Your task to perform on an android device: toggle data saver in the chrome app Image 0: 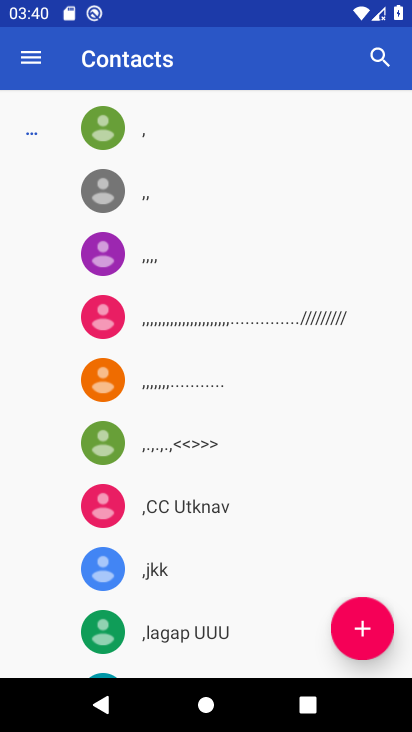
Step 0: press home button
Your task to perform on an android device: toggle data saver in the chrome app Image 1: 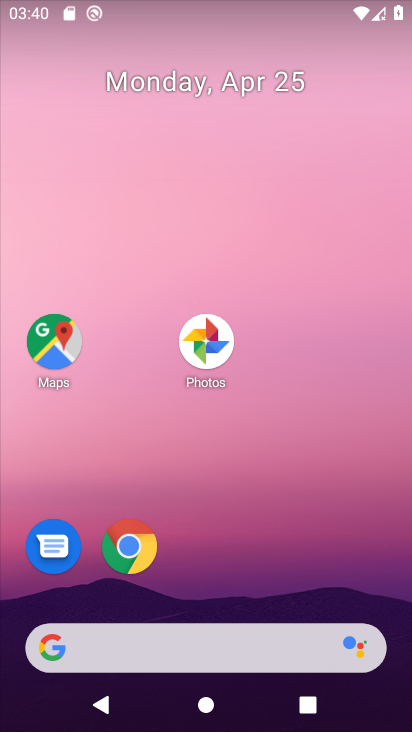
Step 1: drag from (207, 511) to (260, 310)
Your task to perform on an android device: toggle data saver in the chrome app Image 2: 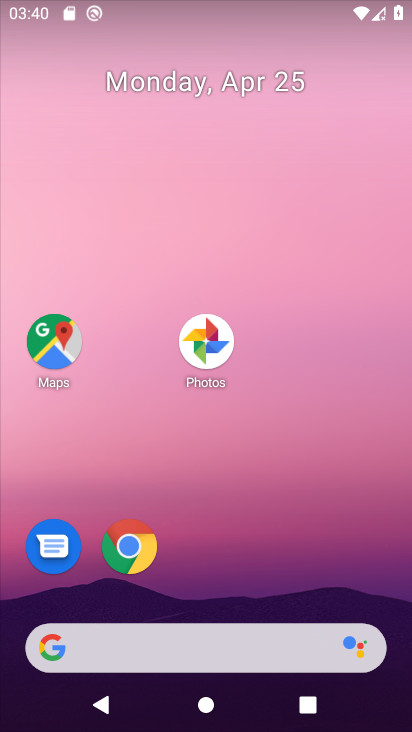
Step 2: drag from (247, 582) to (294, 222)
Your task to perform on an android device: toggle data saver in the chrome app Image 3: 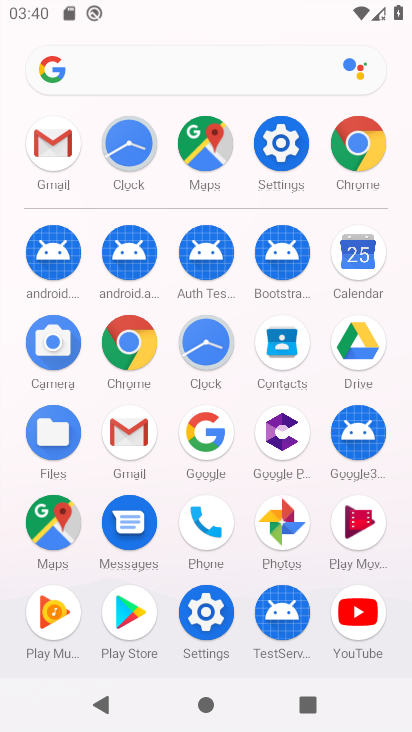
Step 3: click (136, 360)
Your task to perform on an android device: toggle data saver in the chrome app Image 4: 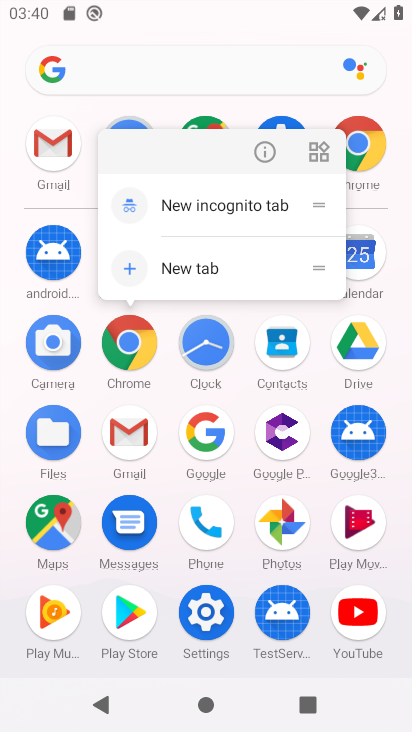
Step 4: click (136, 360)
Your task to perform on an android device: toggle data saver in the chrome app Image 5: 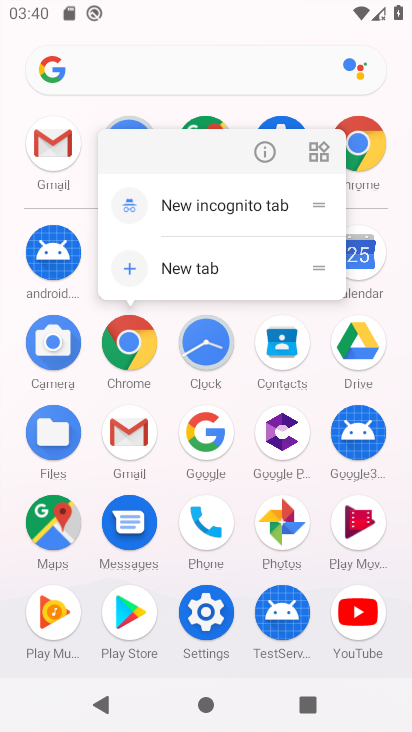
Step 5: click (136, 360)
Your task to perform on an android device: toggle data saver in the chrome app Image 6: 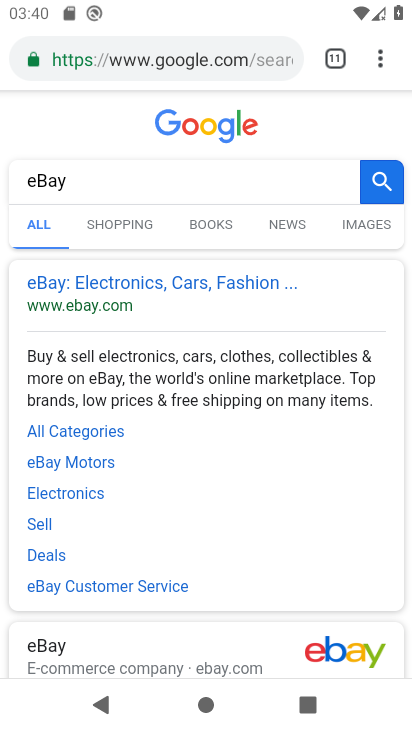
Step 6: click (382, 55)
Your task to perform on an android device: toggle data saver in the chrome app Image 7: 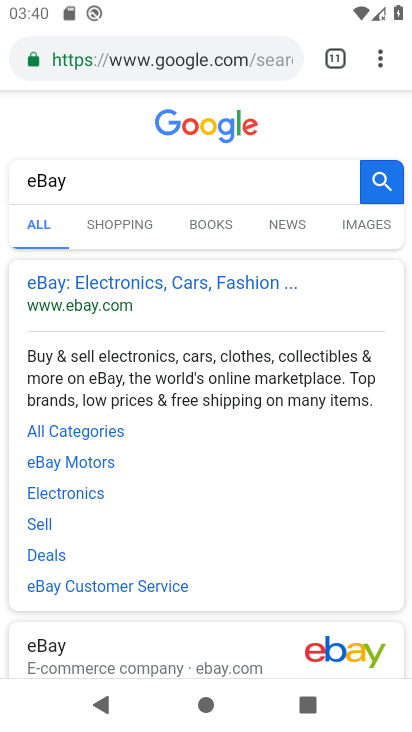
Step 7: click (381, 56)
Your task to perform on an android device: toggle data saver in the chrome app Image 8: 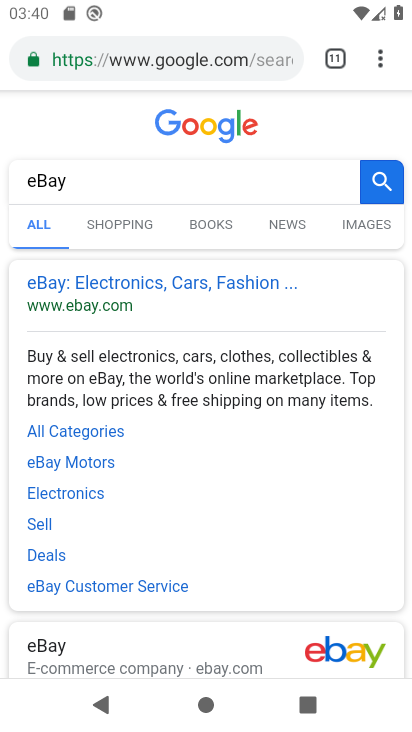
Step 8: click (365, 58)
Your task to perform on an android device: toggle data saver in the chrome app Image 9: 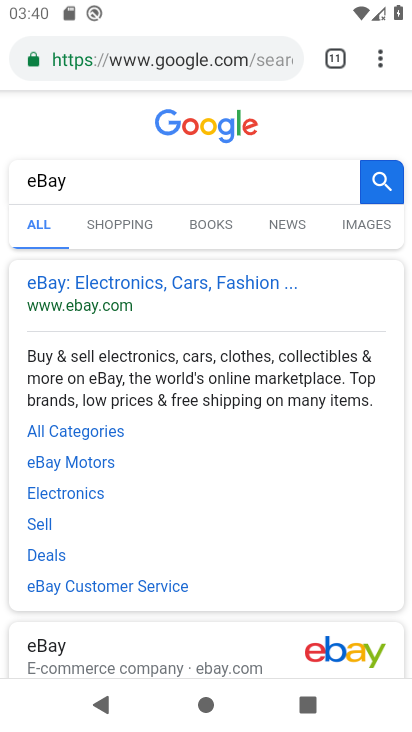
Step 9: click (378, 55)
Your task to perform on an android device: toggle data saver in the chrome app Image 10: 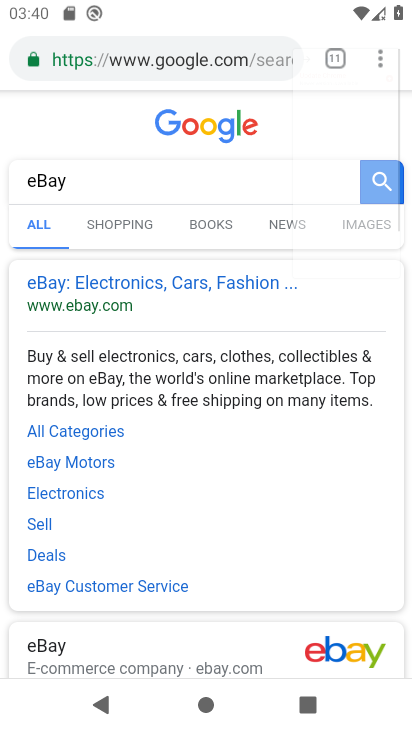
Step 10: click (378, 55)
Your task to perform on an android device: toggle data saver in the chrome app Image 11: 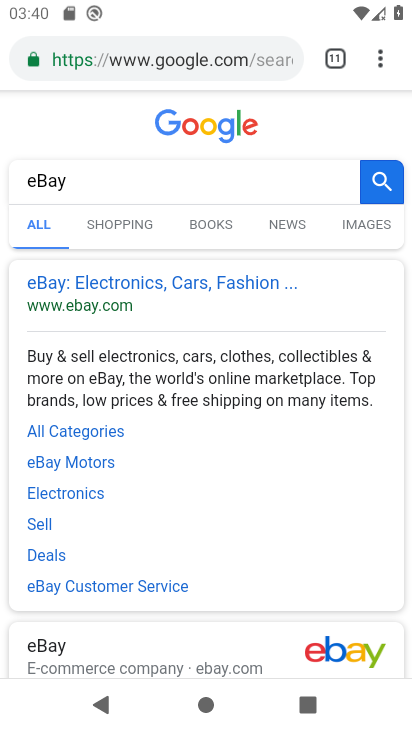
Step 11: click (378, 59)
Your task to perform on an android device: toggle data saver in the chrome app Image 12: 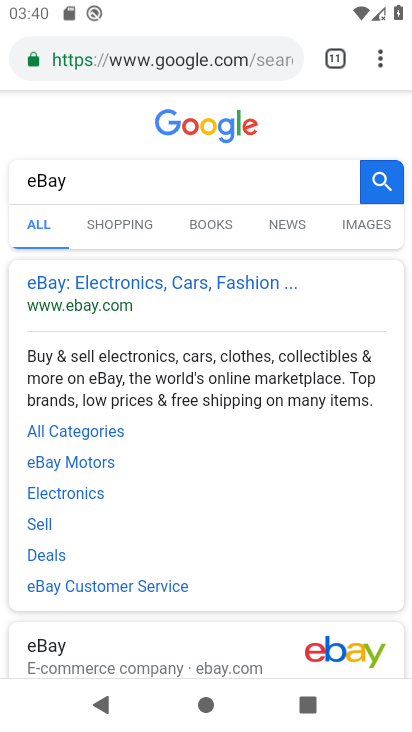
Step 12: click (370, 57)
Your task to perform on an android device: toggle data saver in the chrome app Image 13: 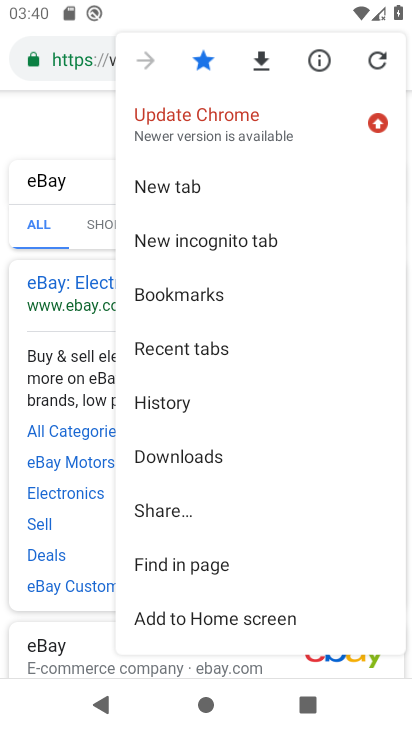
Step 13: drag from (227, 567) to (299, 156)
Your task to perform on an android device: toggle data saver in the chrome app Image 14: 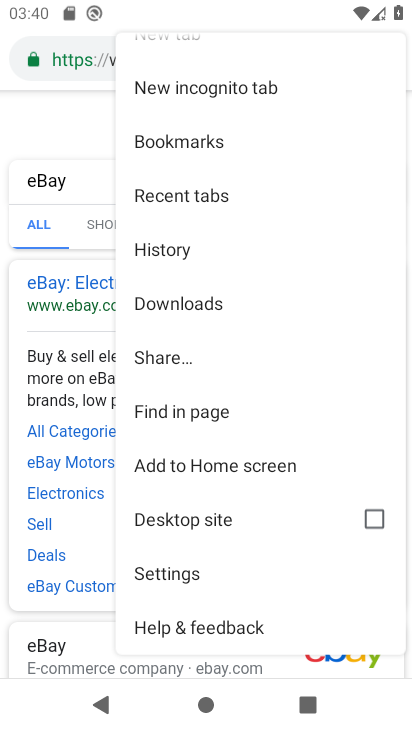
Step 14: click (214, 575)
Your task to perform on an android device: toggle data saver in the chrome app Image 15: 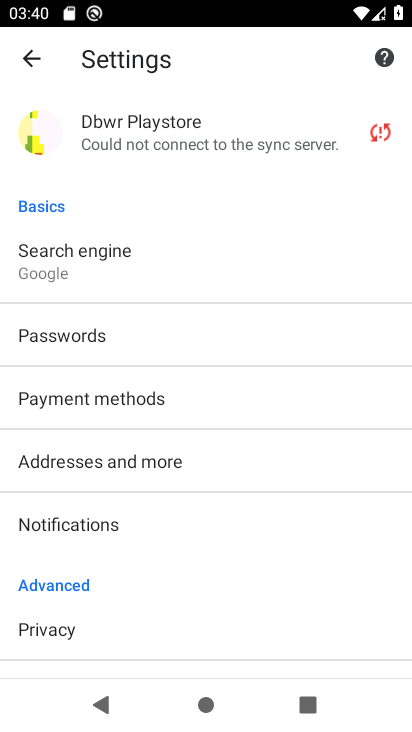
Step 15: drag from (182, 553) to (236, 215)
Your task to perform on an android device: toggle data saver in the chrome app Image 16: 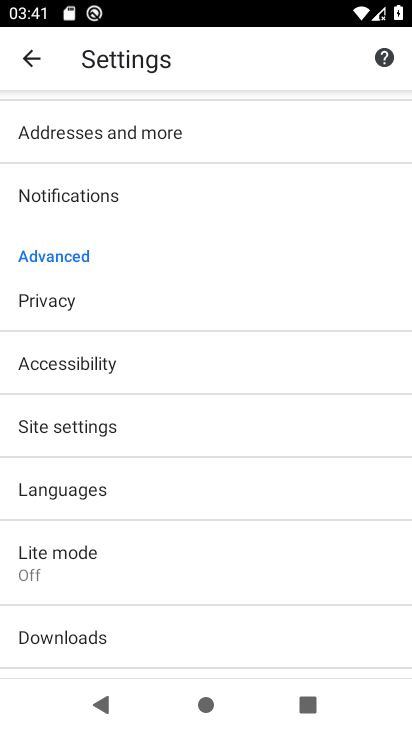
Step 16: click (193, 421)
Your task to perform on an android device: toggle data saver in the chrome app Image 17: 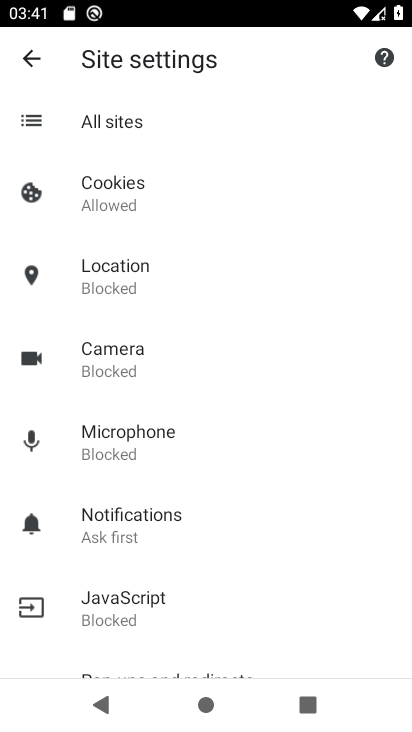
Step 17: drag from (136, 464) to (226, 170)
Your task to perform on an android device: toggle data saver in the chrome app Image 18: 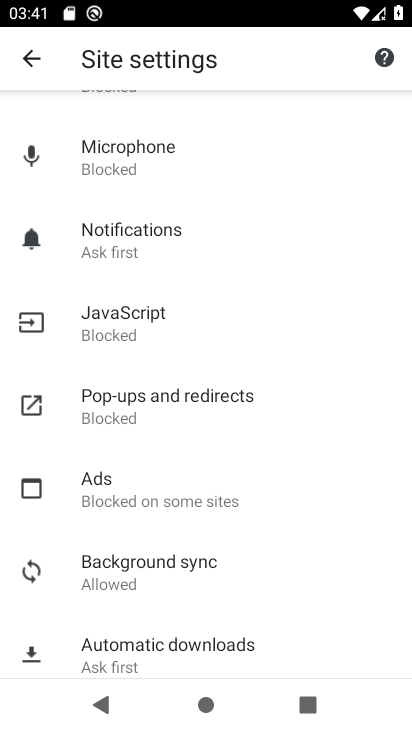
Step 18: click (38, 66)
Your task to perform on an android device: toggle data saver in the chrome app Image 19: 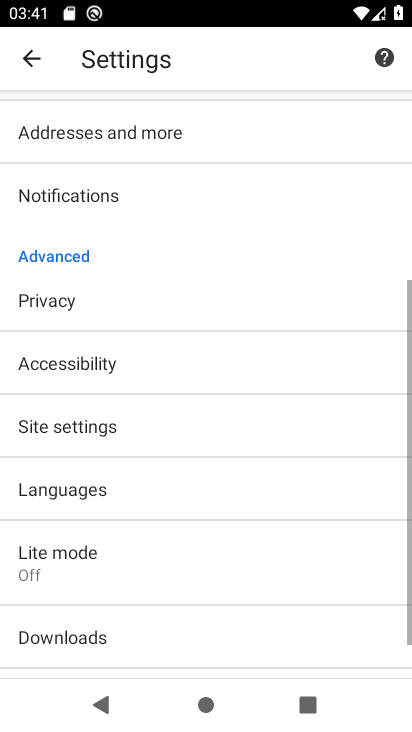
Step 19: click (140, 557)
Your task to perform on an android device: toggle data saver in the chrome app Image 20: 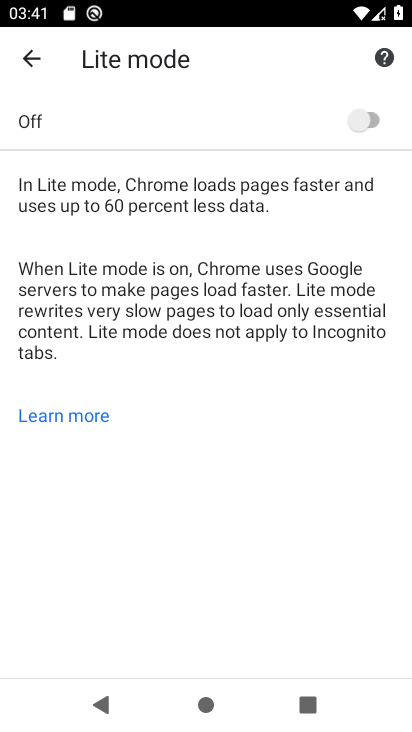
Step 20: click (378, 125)
Your task to perform on an android device: toggle data saver in the chrome app Image 21: 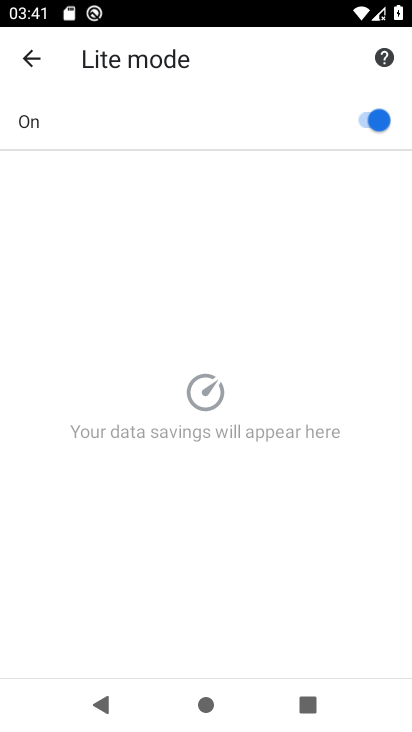
Step 21: task complete